Your task to perform on an android device: What's the weather today? Image 0: 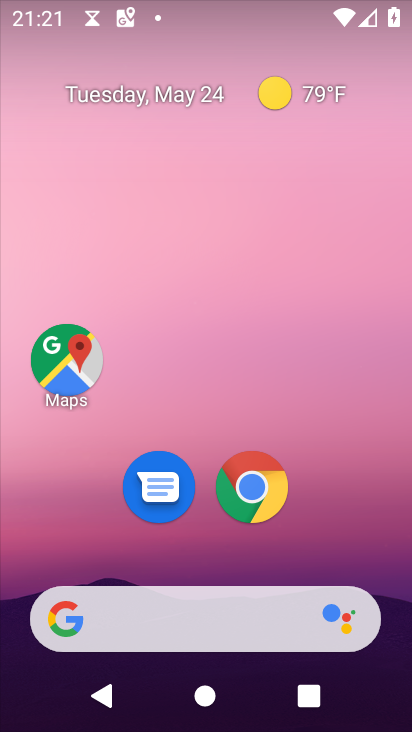
Step 0: drag from (373, 511) to (346, 21)
Your task to perform on an android device: What's the weather today? Image 1: 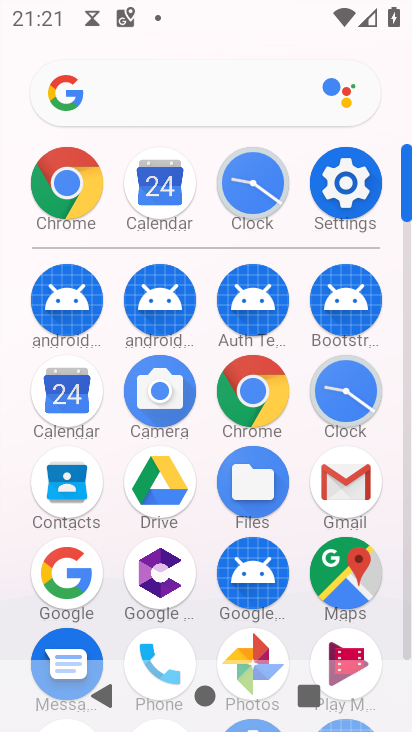
Step 1: click (404, 654)
Your task to perform on an android device: What's the weather today? Image 2: 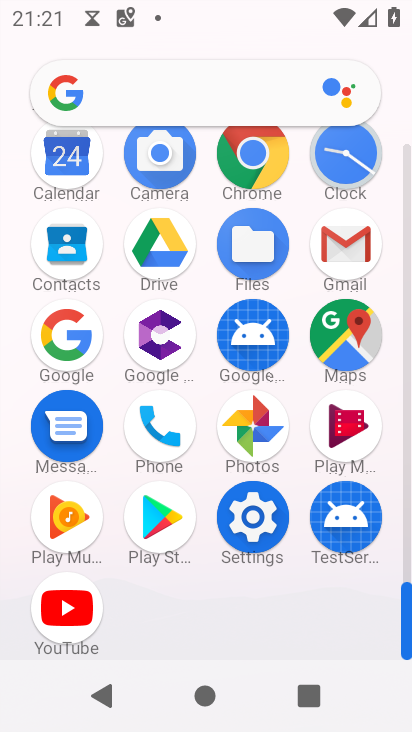
Step 2: click (268, 150)
Your task to perform on an android device: What's the weather today? Image 3: 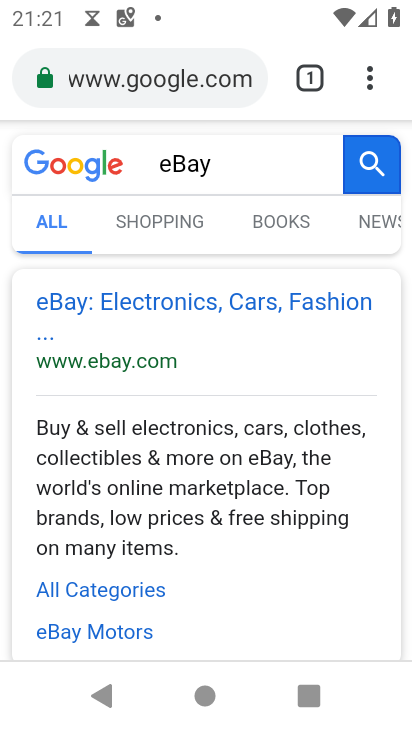
Step 3: click (202, 82)
Your task to perform on an android device: What's the weather today? Image 4: 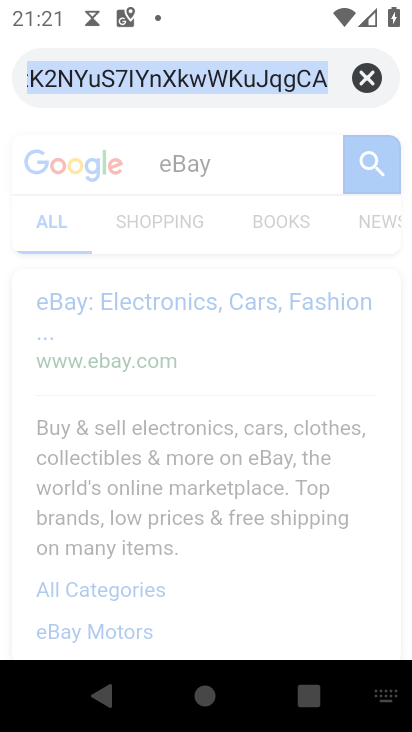
Step 4: click (379, 64)
Your task to perform on an android device: What's the weather today? Image 5: 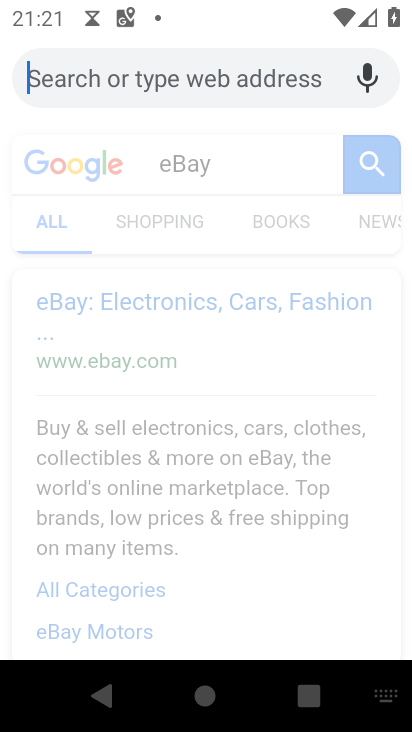
Step 5: type "What's the weather today?"
Your task to perform on an android device: What's the weather today? Image 6: 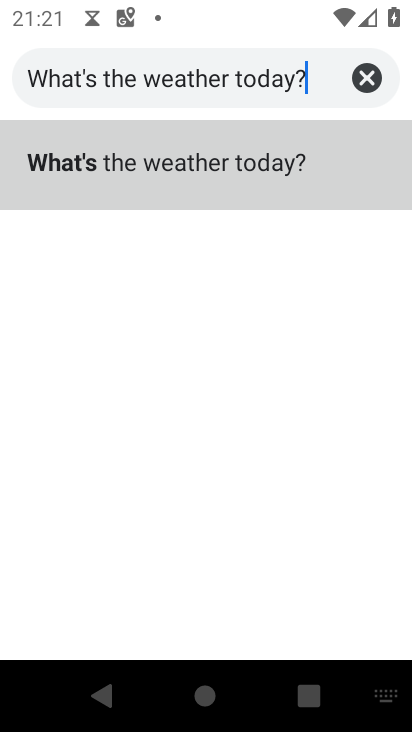
Step 6: type ""
Your task to perform on an android device: What's the weather today? Image 7: 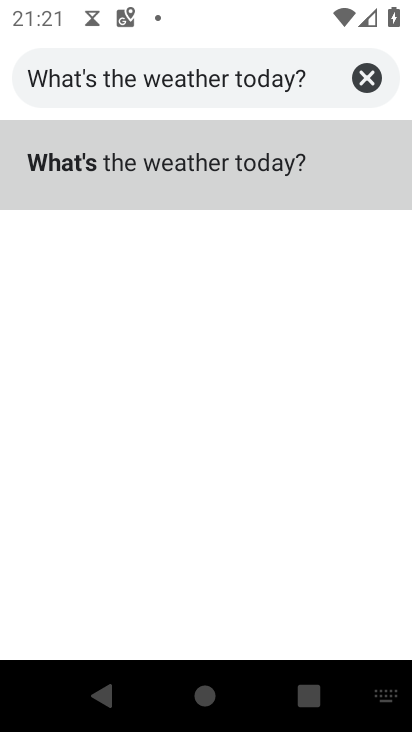
Step 7: click (155, 154)
Your task to perform on an android device: What's the weather today? Image 8: 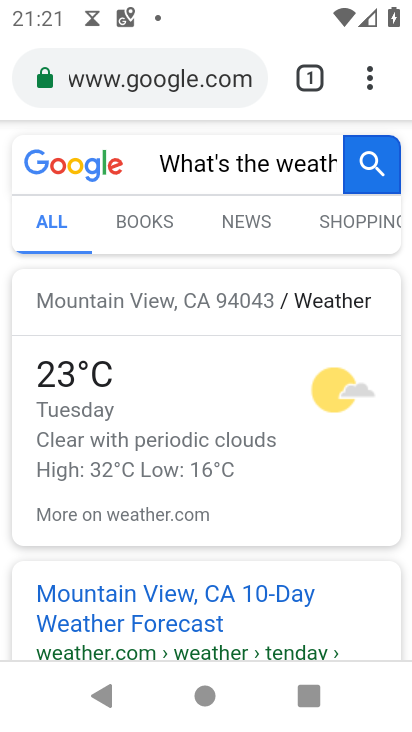
Step 8: task complete